Your task to perform on an android device: Open the stopwatch Image 0: 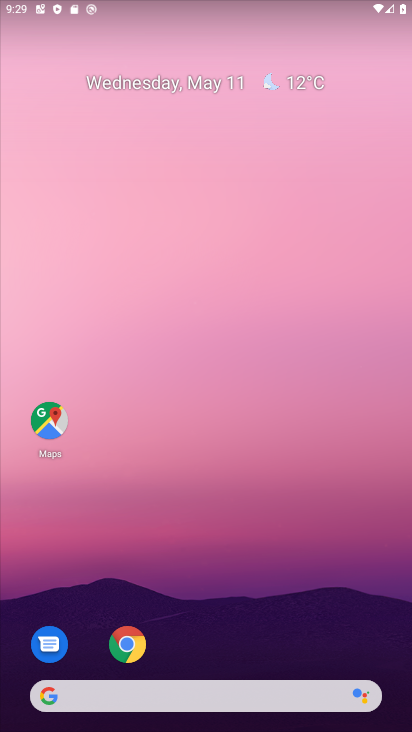
Step 0: drag from (319, 626) to (35, 127)
Your task to perform on an android device: Open the stopwatch Image 1: 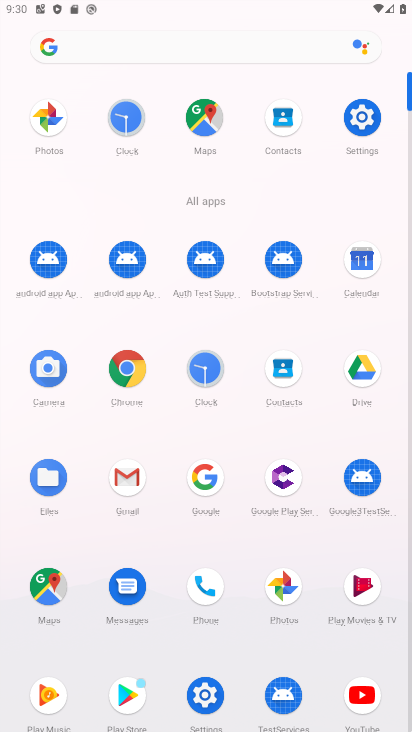
Step 1: click (210, 370)
Your task to perform on an android device: Open the stopwatch Image 2: 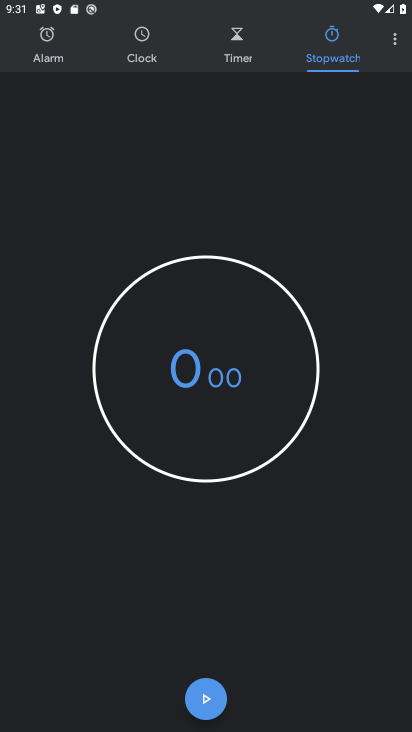
Step 2: task complete